Your task to perform on an android device: Open the phone app and click the voicemail tab. Image 0: 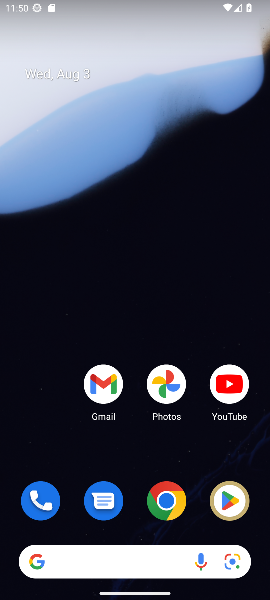
Step 0: drag from (191, 358) to (177, 7)
Your task to perform on an android device: Open the phone app and click the voicemail tab. Image 1: 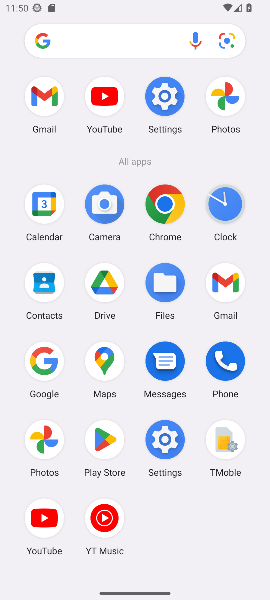
Step 1: click (228, 359)
Your task to perform on an android device: Open the phone app and click the voicemail tab. Image 2: 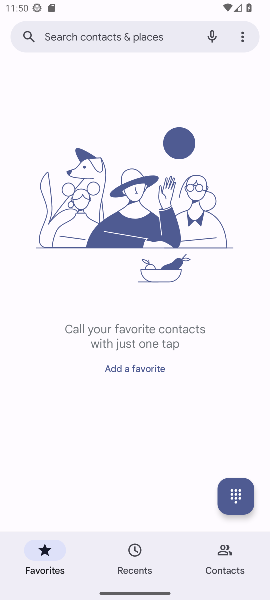
Step 2: click (239, 41)
Your task to perform on an android device: Open the phone app and click the voicemail tab. Image 3: 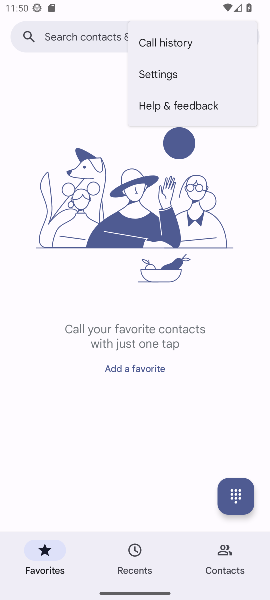
Step 3: click (227, 484)
Your task to perform on an android device: Open the phone app and click the voicemail tab. Image 4: 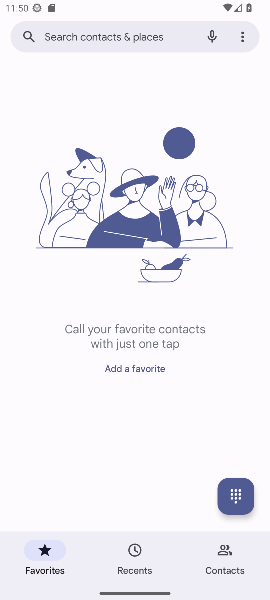
Step 4: click (242, 503)
Your task to perform on an android device: Open the phone app and click the voicemail tab. Image 5: 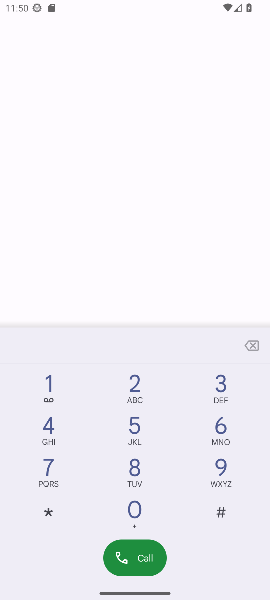
Step 5: task complete